Your task to perform on an android device: toggle javascript in the chrome app Image 0: 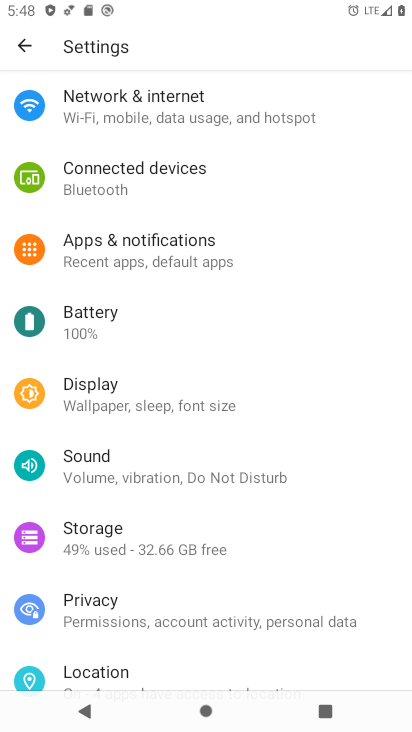
Step 0: press home button
Your task to perform on an android device: toggle javascript in the chrome app Image 1: 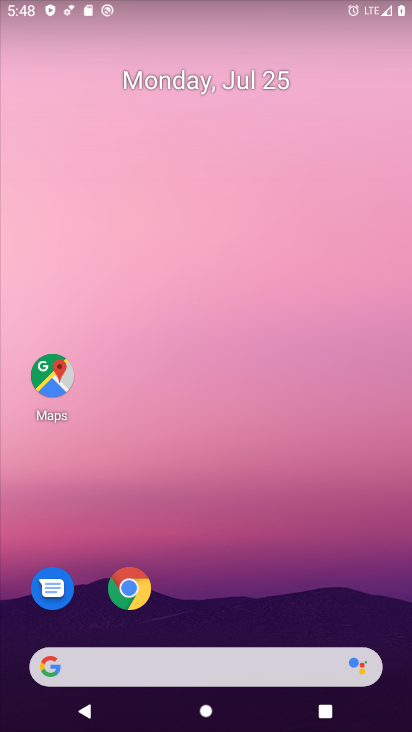
Step 1: click (129, 591)
Your task to perform on an android device: toggle javascript in the chrome app Image 2: 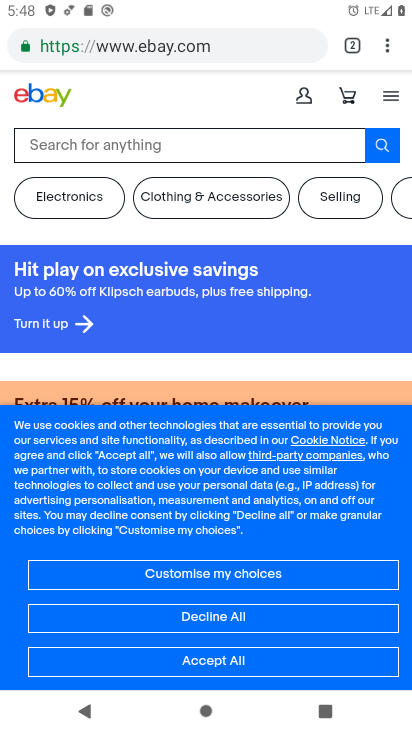
Step 2: click (385, 44)
Your task to perform on an android device: toggle javascript in the chrome app Image 3: 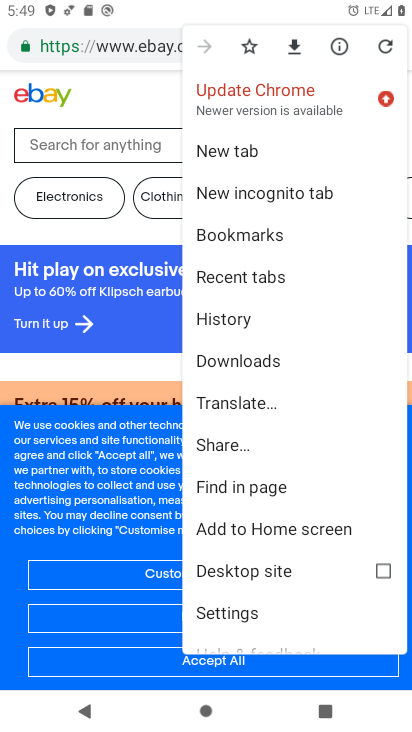
Step 3: click (231, 612)
Your task to perform on an android device: toggle javascript in the chrome app Image 4: 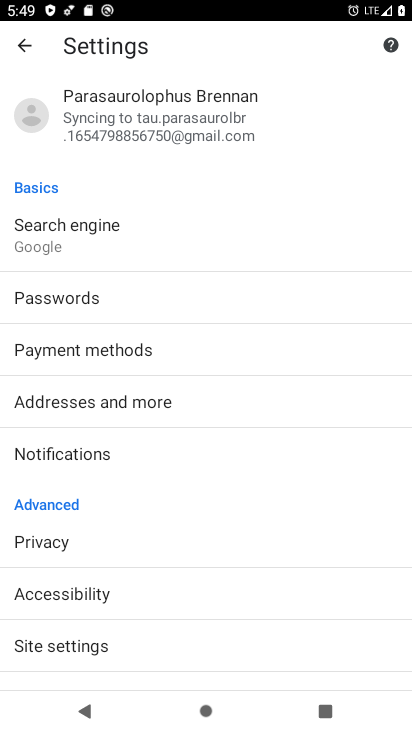
Step 4: drag from (115, 636) to (148, 536)
Your task to perform on an android device: toggle javascript in the chrome app Image 5: 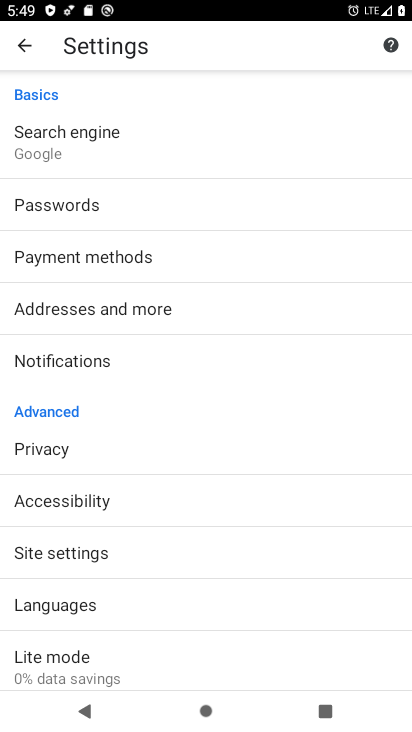
Step 5: click (85, 553)
Your task to perform on an android device: toggle javascript in the chrome app Image 6: 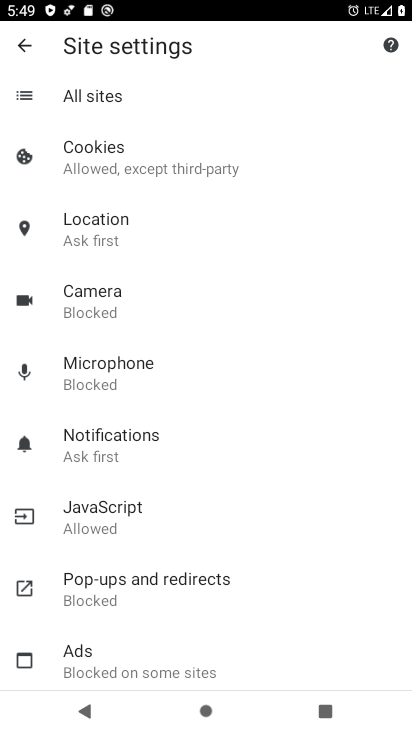
Step 6: click (112, 508)
Your task to perform on an android device: toggle javascript in the chrome app Image 7: 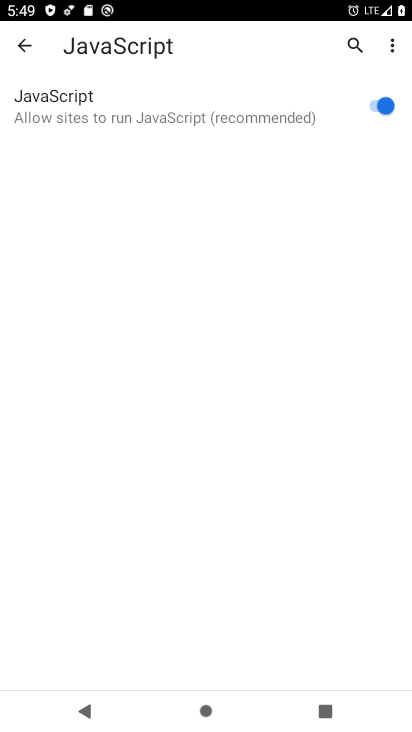
Step 7: click (382, 103)
Your task to perform on an android device: toggle javascript in the chrome app Image 8: 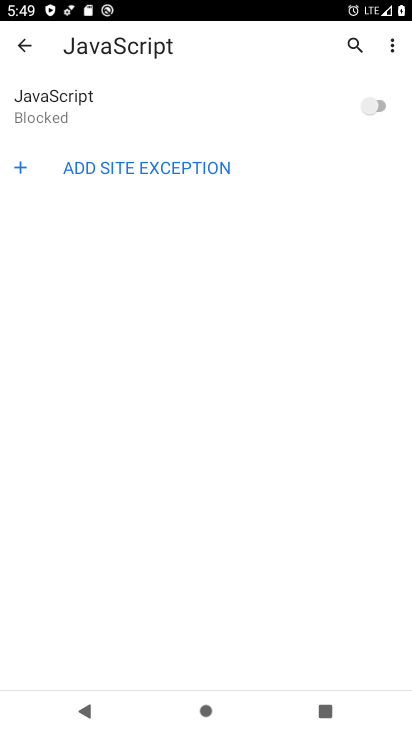
Step 8: task complete